Your task to perform on an android device: open app "Facebook" Image 0: 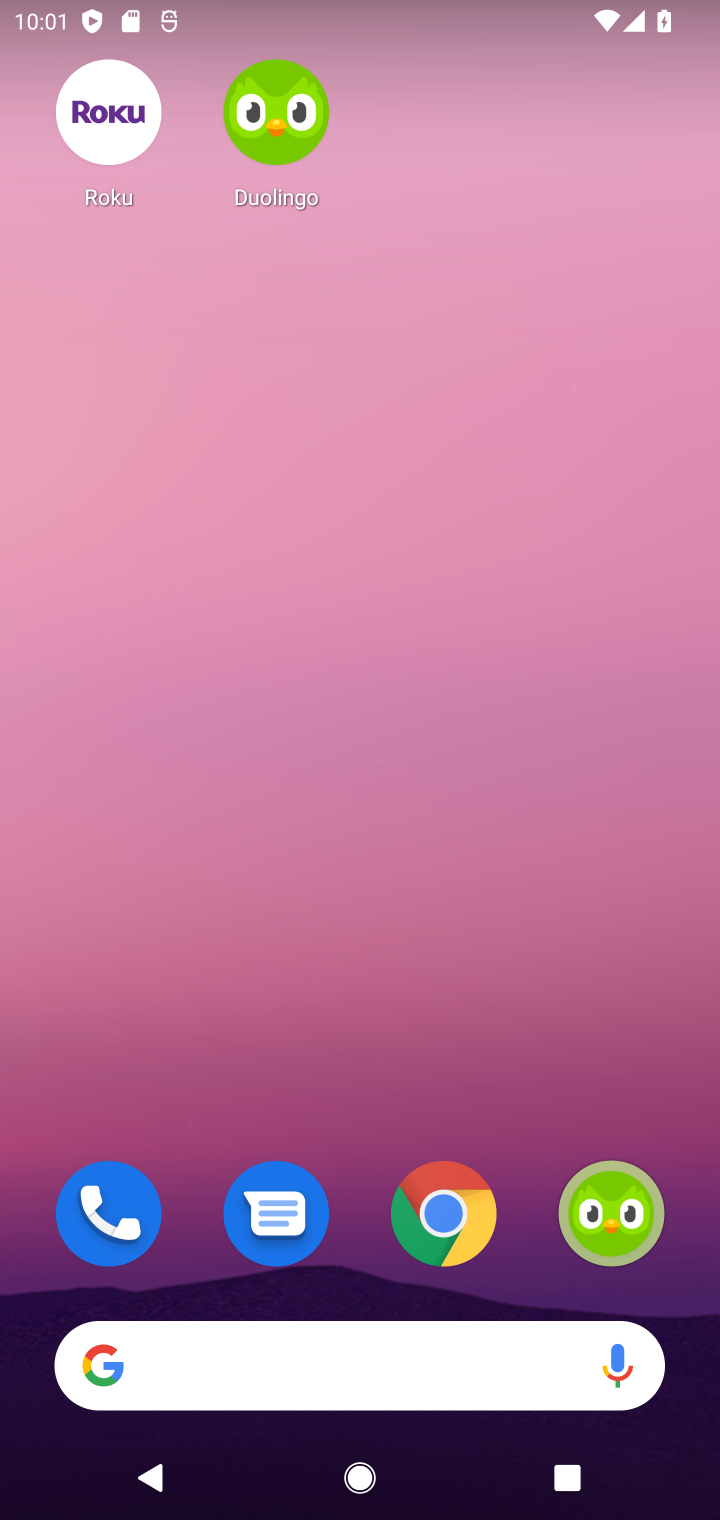
Step 0: drag from (325, 1258) to (460, 109)
Your task to perform on an android device: open app "Facebook" Image 1: 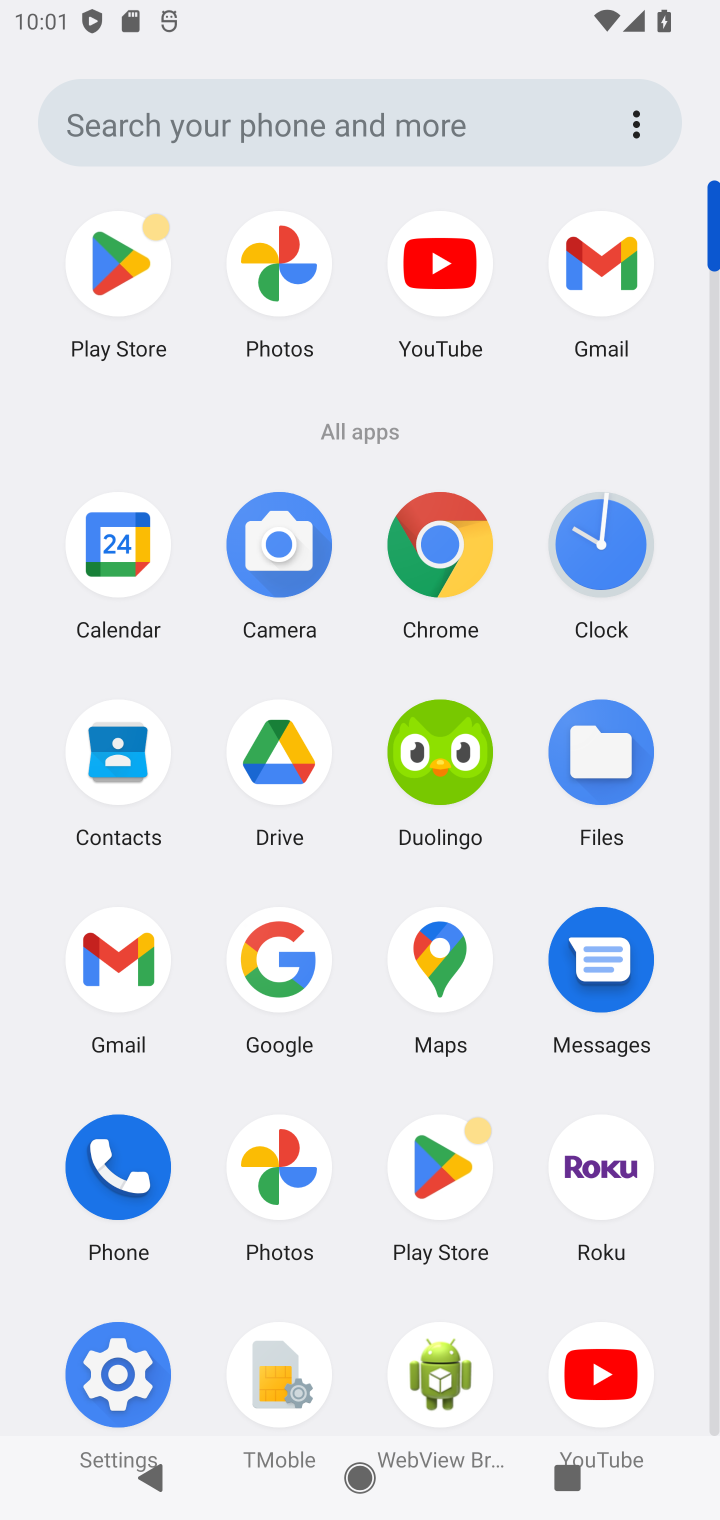
Step 1: click (125, 295)
Your task to perform on an android device: open app "Facebook" Image 2: 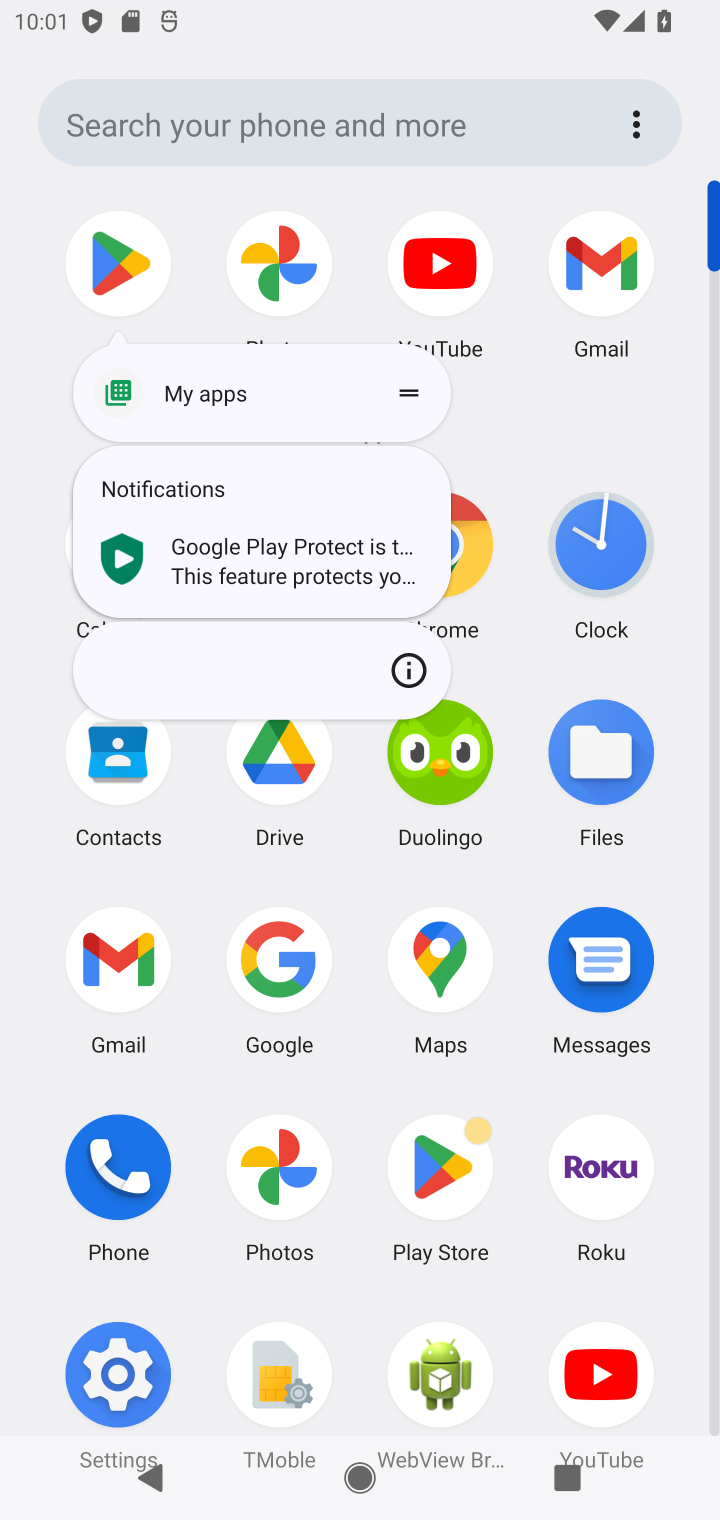
Step 2: click (125, 295)
Your task to perform on an android device: open app "Facebook" Image 3: 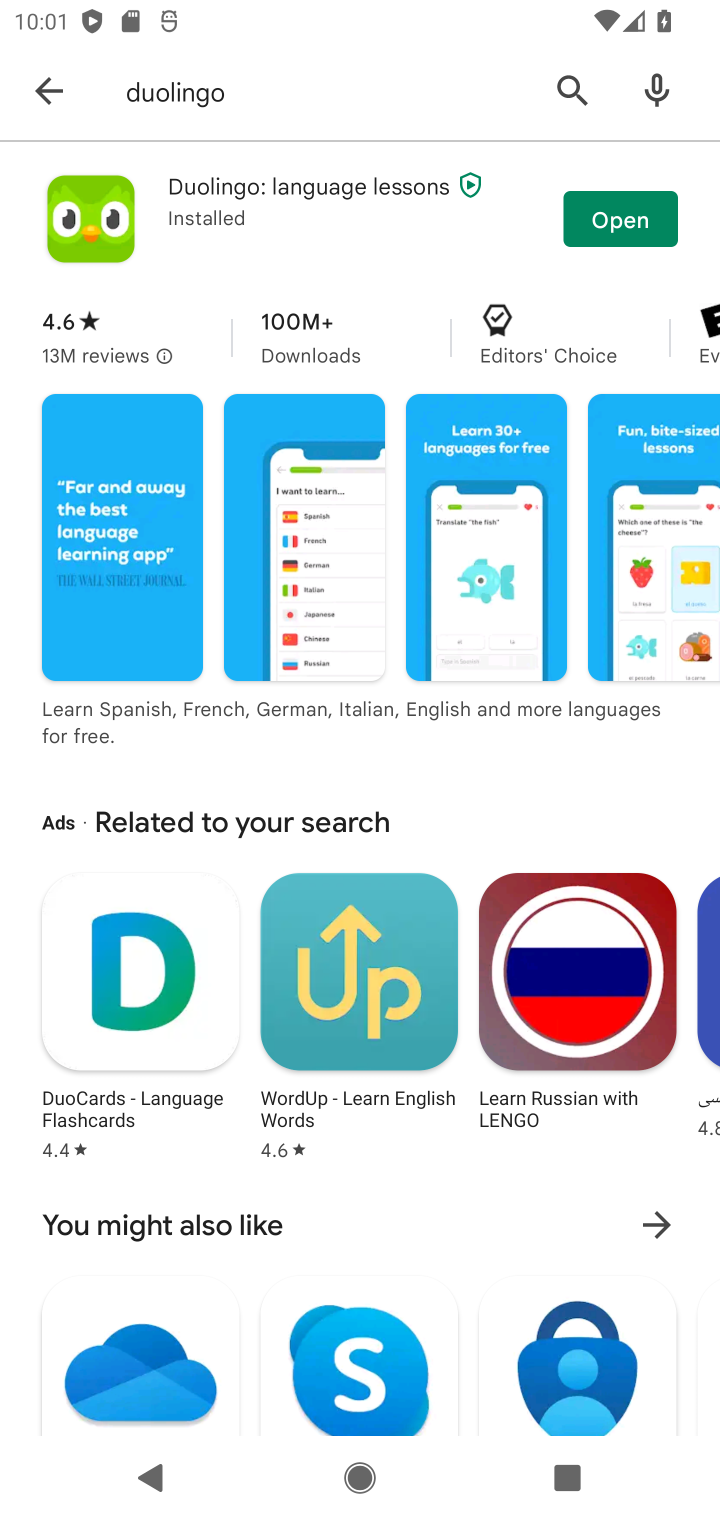
Step 3: click (294, 106)
Your task to perform on an android device: open app "Facebook" Image 4: 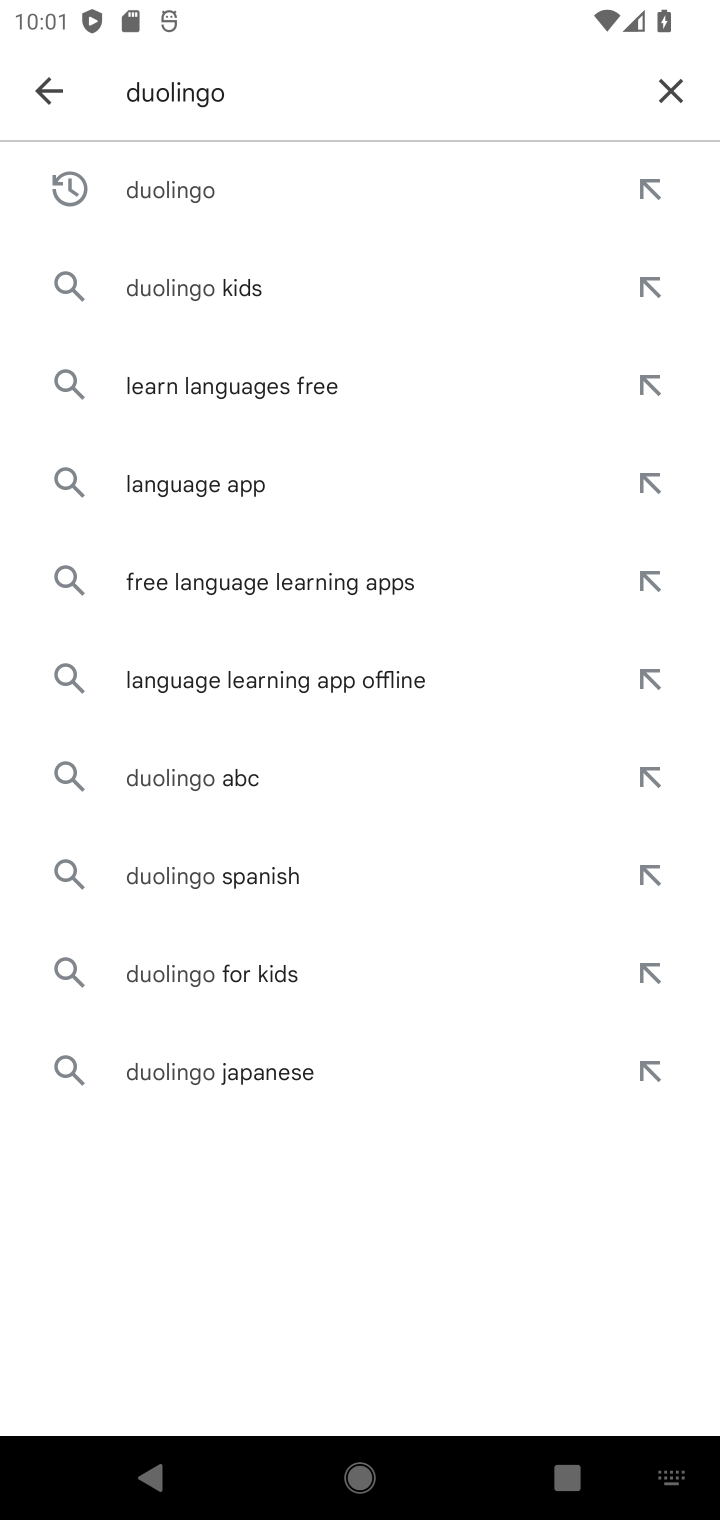
Step 4: click (665, 78)
Your task to perform on an android device: open app "Facebook" Image 5: 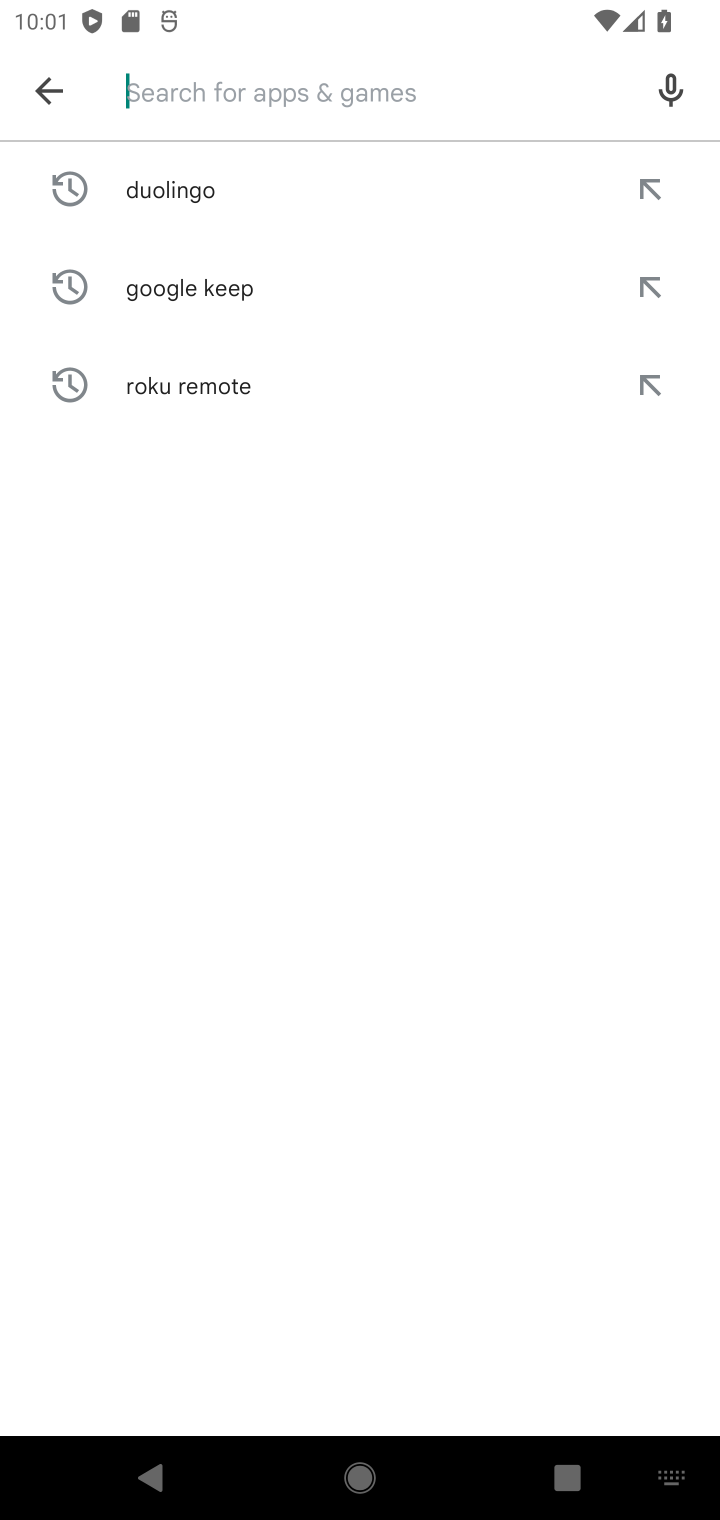
Step 5: type "facebook"
Your task to perform on an android device: open app "Facebook" Image 6: 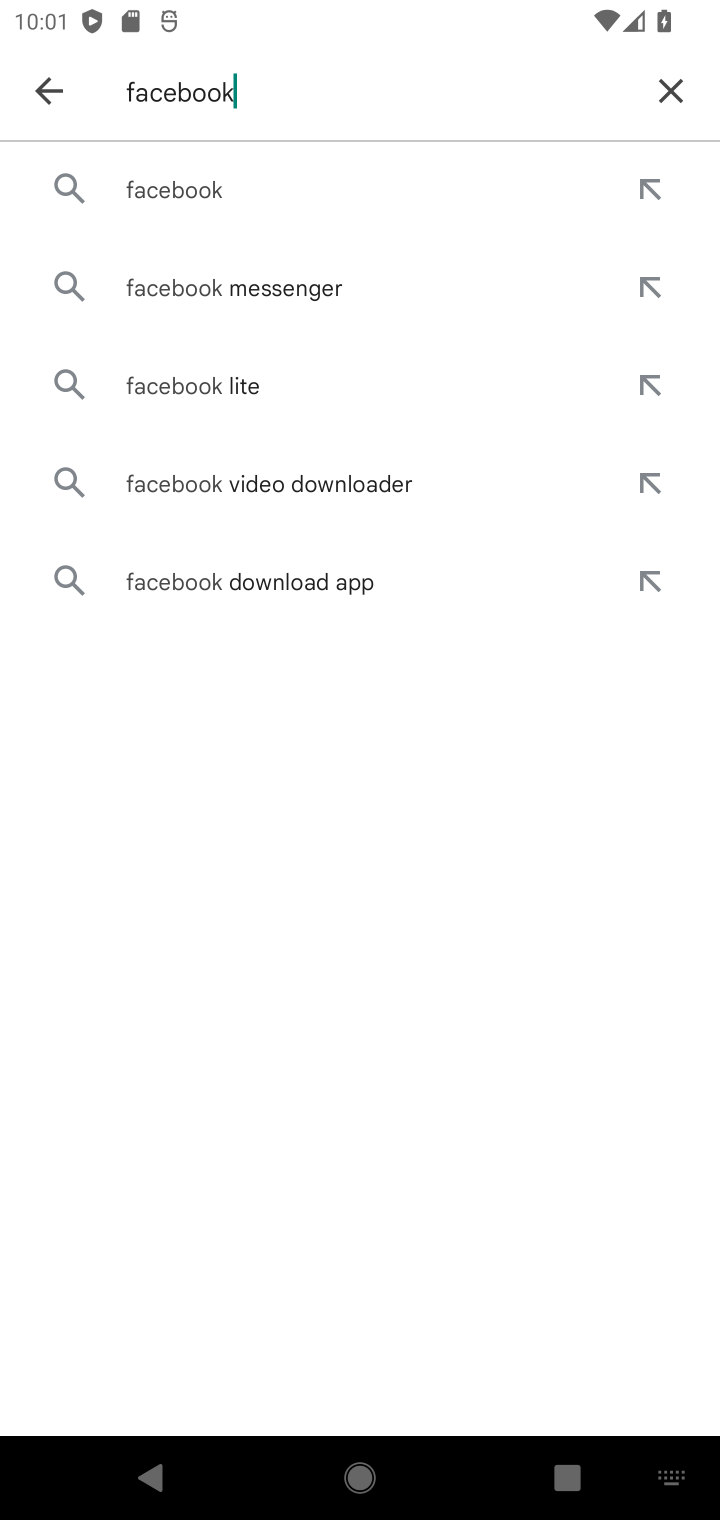
Step 6: click (230, 169)
Your task to perform on an android device: open app "Facebook" Image 7: 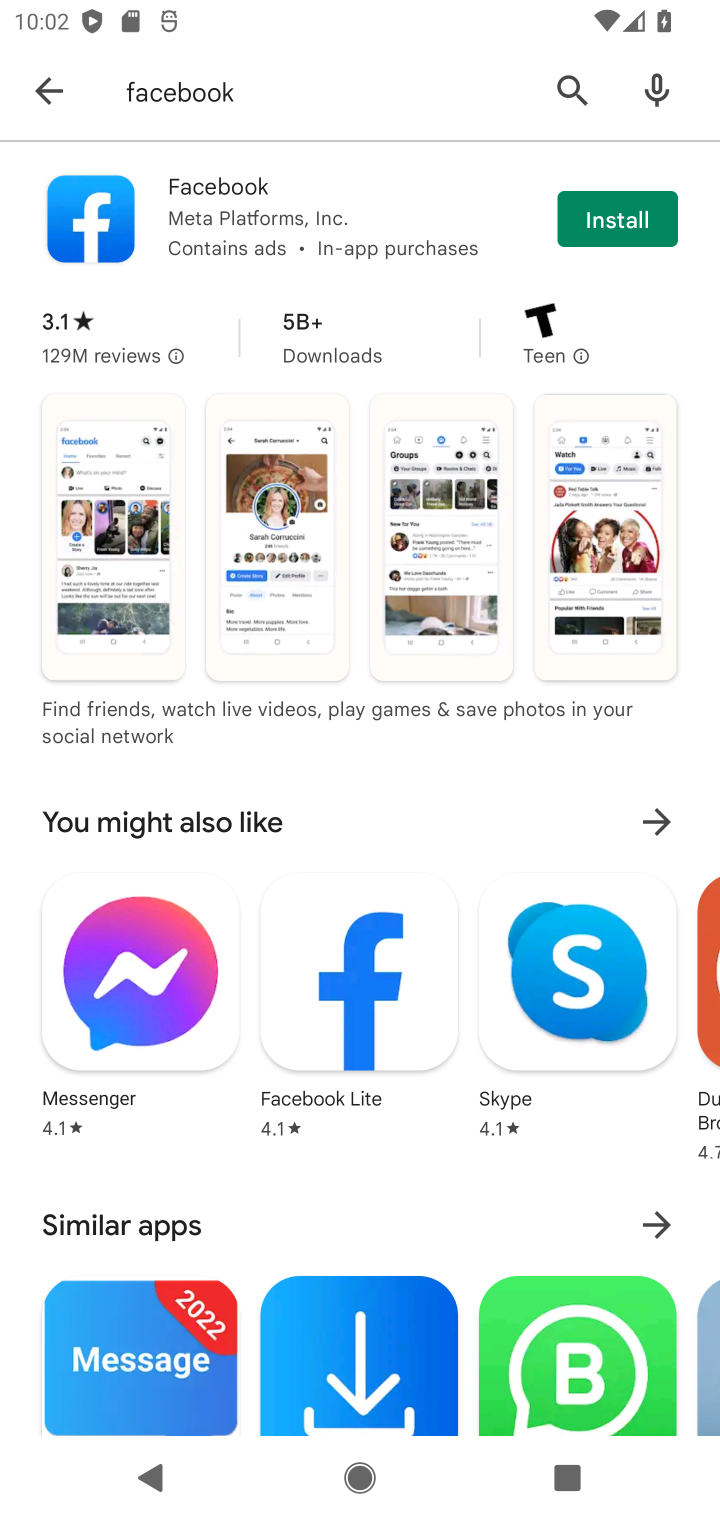
Step 7: task complete